Your task to perform on an android device: toggle data saver in the chrome app Image 0: 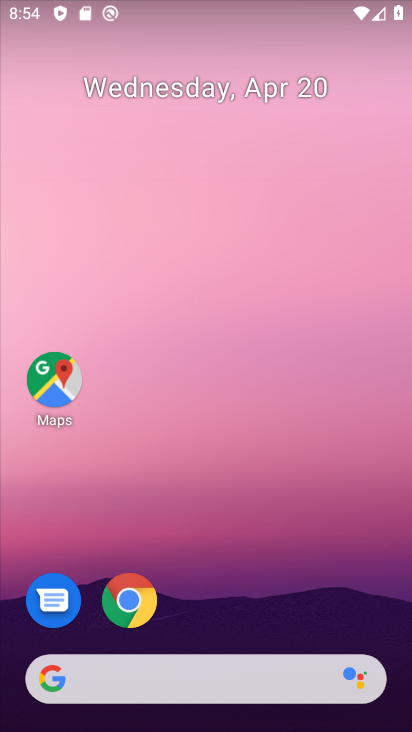
Step 0: click (149, 603)
Your task to perform on an android device: toggle data saver in the chrome app Image 1: 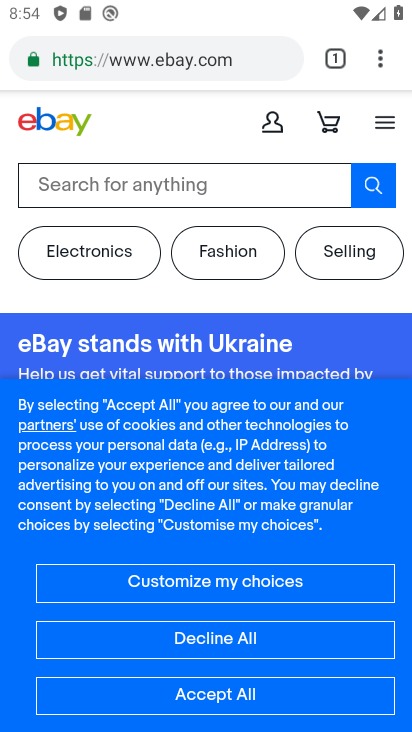
Step 1: drag from (379, 59) to (207, 636)
Your task to perform on an android device: toggle data saver in the chrome app Image 2: 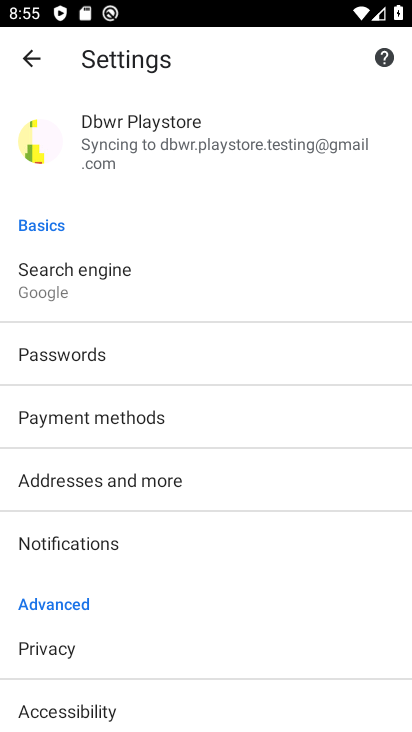
Step 2: drag from (211, 536) to (96, 117)
Your task to perform on an android device: toggle data saver in the chrome app Image 3: 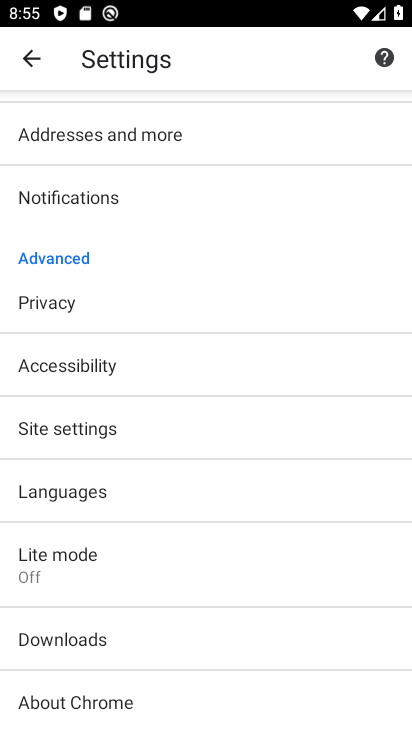
Step 3: click (143, 555)
Your task to perform on an android device: toggle data saver in the chrome app Image 4: 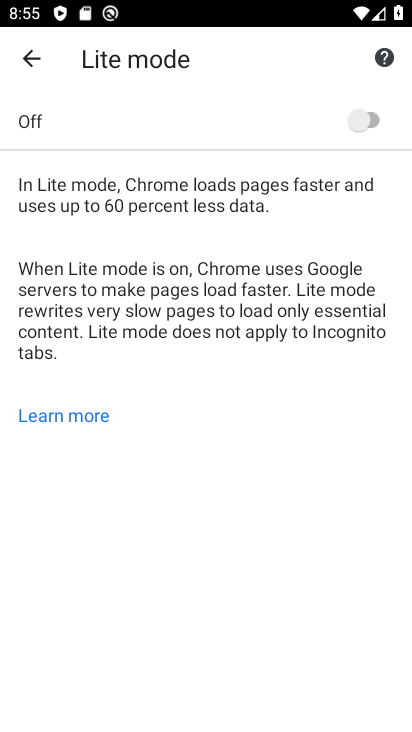
Step 4: click (345, 110)
Your task to perform on an android device: toggle data saver in the chrome app Image 5: 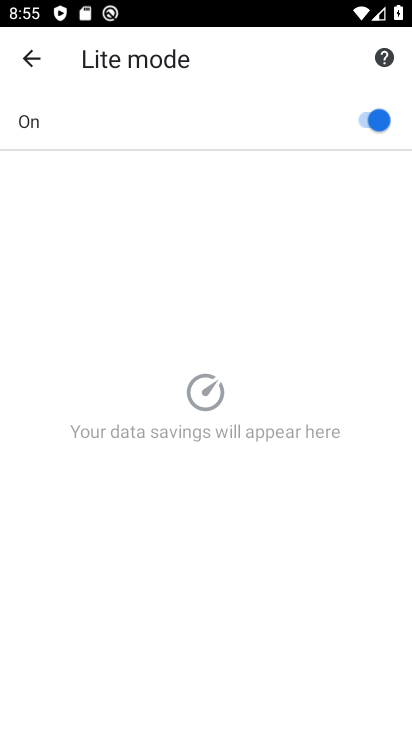
Step 5: task complete